Your task to perform on an android device: change timer sound Image 0: 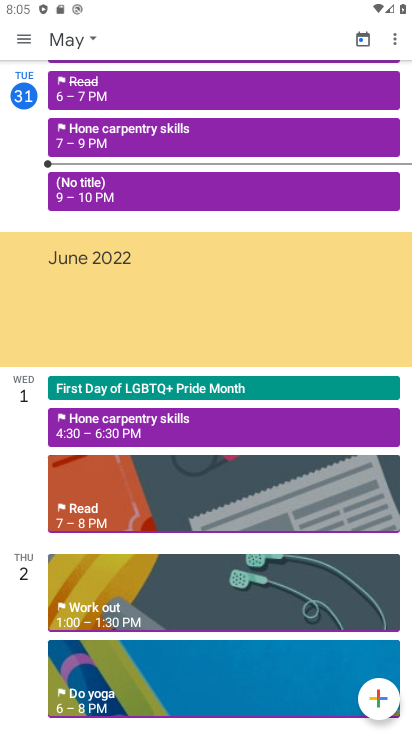
Step 0: press home button
Your task to perform on an android device: change timer sound Image 1: 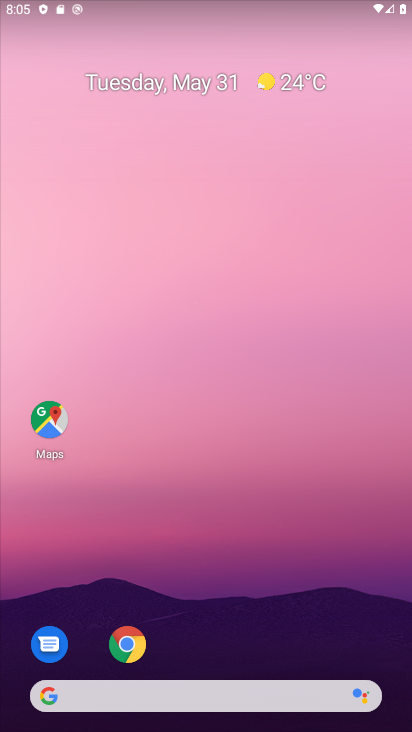
Step 1: drag from (351, 599) to (334, 182)
Your task to perform on an android device: change timer sound Image 2: 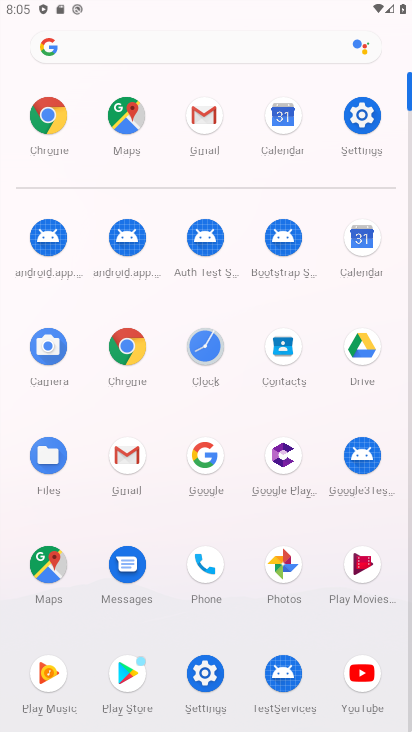
Step 2: click (196, 340)
Your task to perform on an android device: change timer sound Image 3: 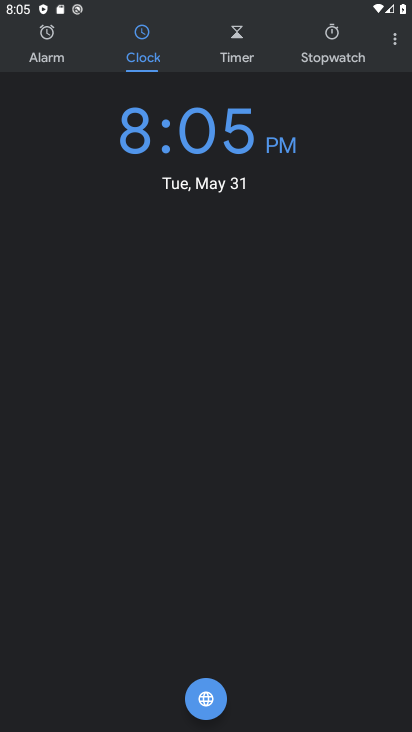
Step 3: drag from (396, 35) to (321, 81)
Your task to perform on an android device: change timer sound Image 4: 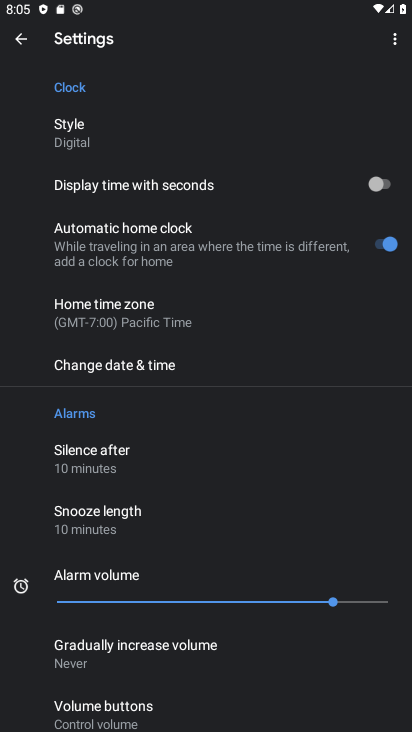
Step 4: drag from (281, 538) to (282, 246)
Your task to perform on an android device: change timer sound Image 5: 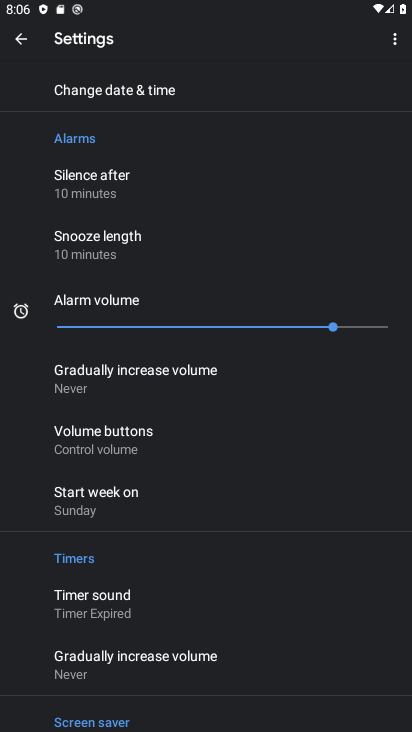
Step 5: drag from (233, 553) to (236, 308)
Your task to perform on an android device: change timer sound Image 6: 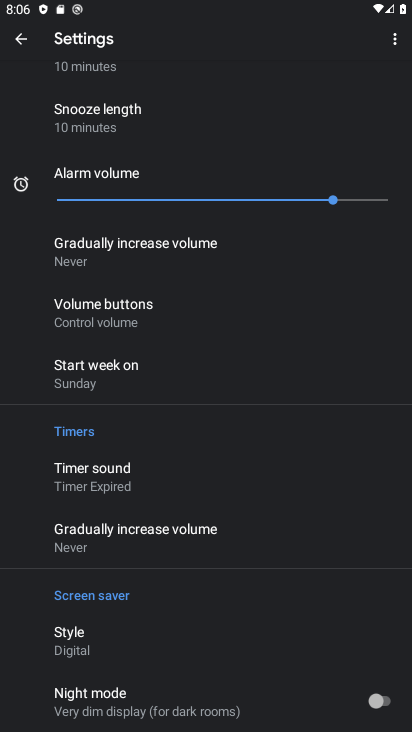
Step 6: click (131, 473)
Your task to perform on an android device: change timer sound Image 7: 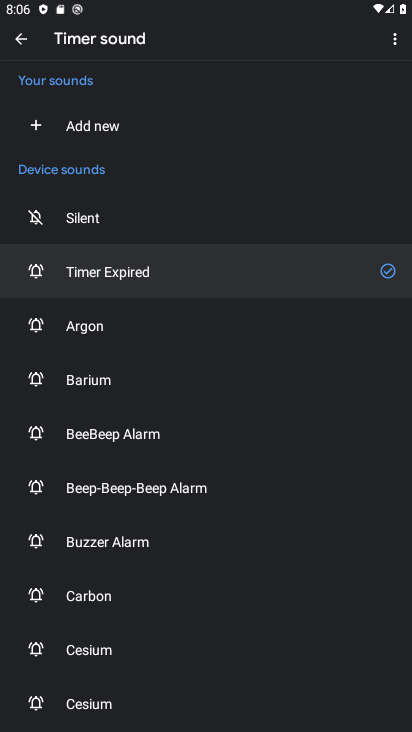
Step 7: click (117, 543)
Your task to perform on an android device: change timer sound Image 8: 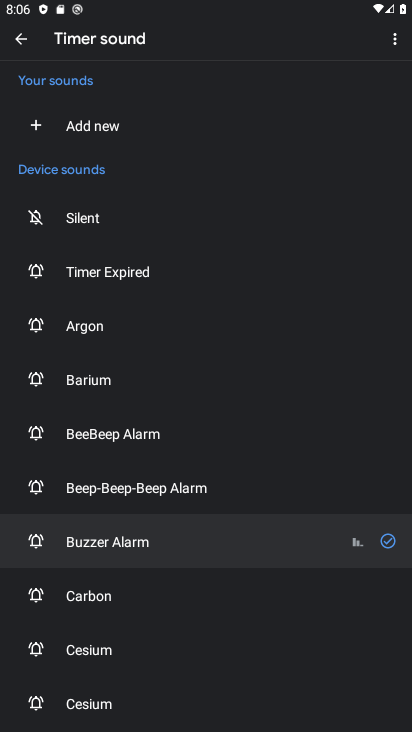
Step 8: task complete